Your task to perform on an android device: Open my contact list Image 0: 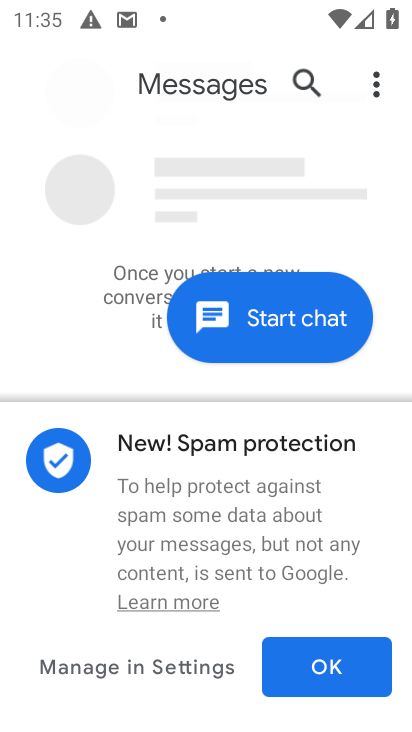
Step 0: press home button
Your task to perform on an android device: Open my contact list Image 1: 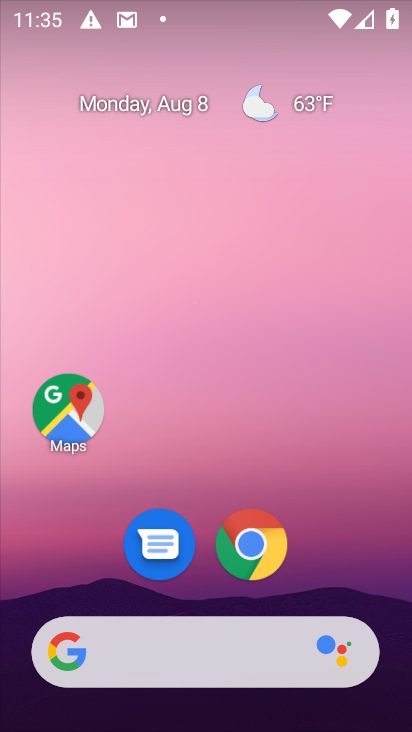
Step 1: drag from (198, 628) to (252, 118)
Your task to perform on an android device: Open my contact list Image 2: 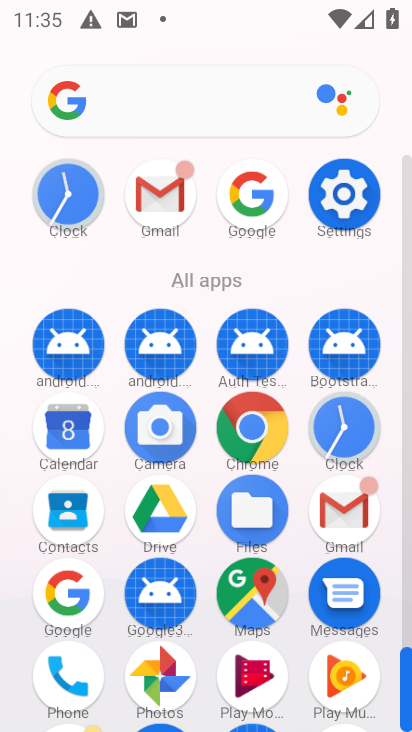
Step 2: click (66, 514)
Your task to perform on an android device: Open my contact list Image 3: 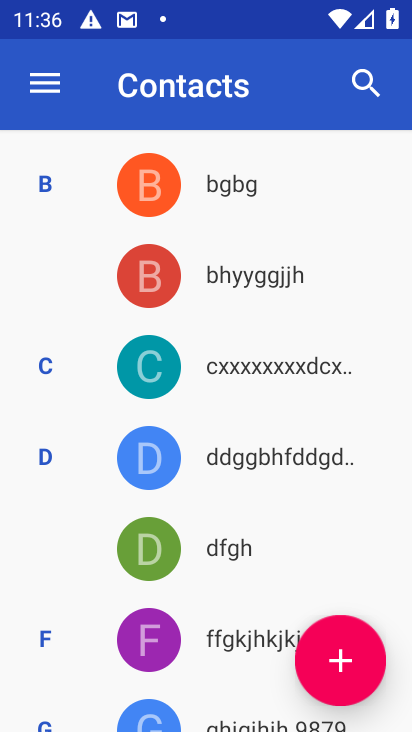
Step 3: task complete